Your task to perform on an android device: Go to settings Image 0: 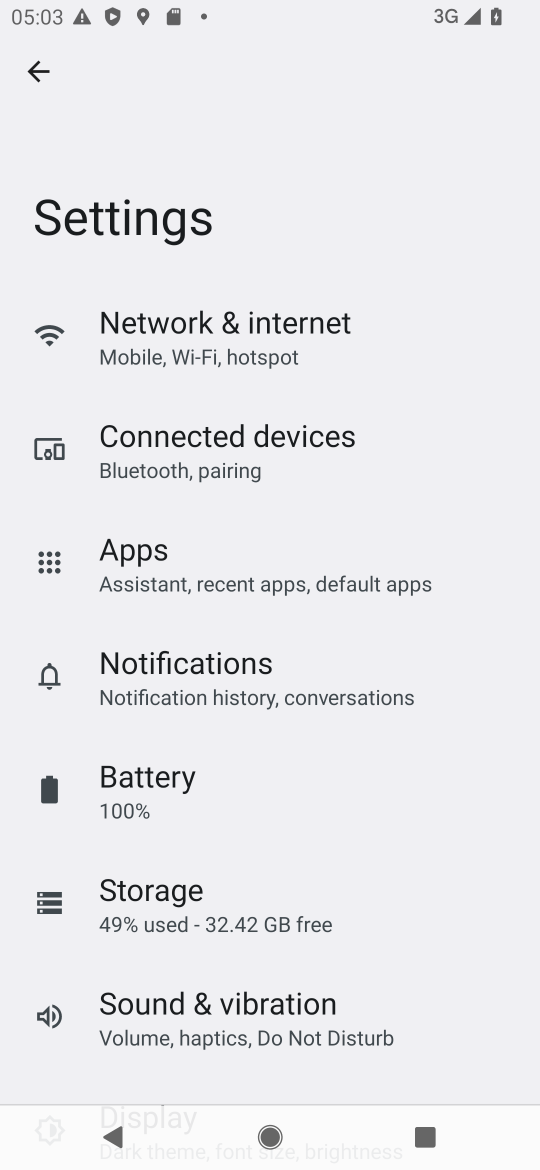
Step 0: drag from (337, 925) to (288, 374)
Your task to perform on an android device: Go to settings Image 1: 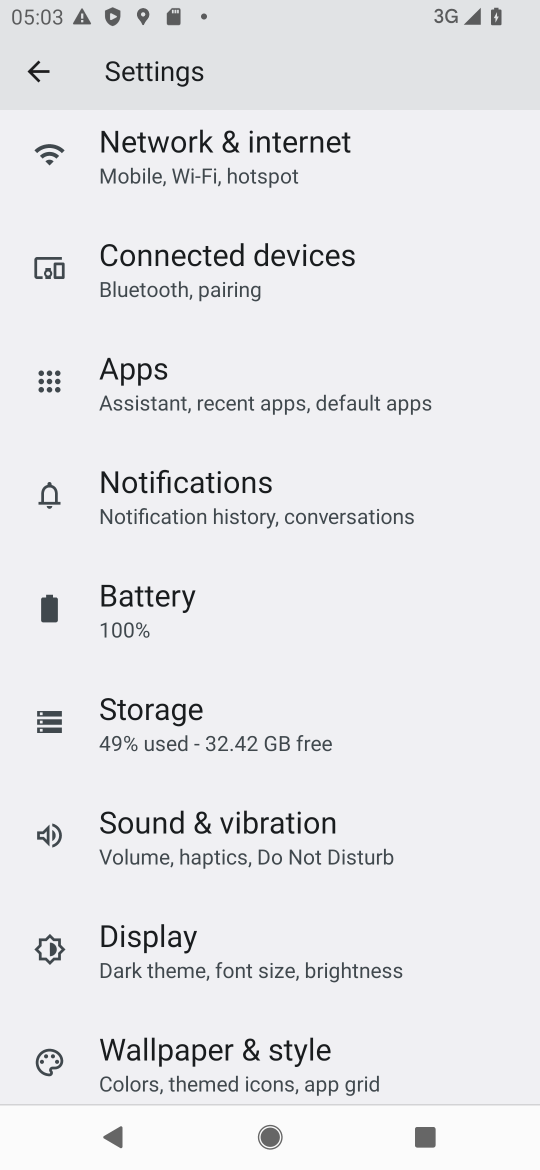
Step 1: task complete